Your task to perform on an android device: stop showing notifications on the lock screen Image 0: 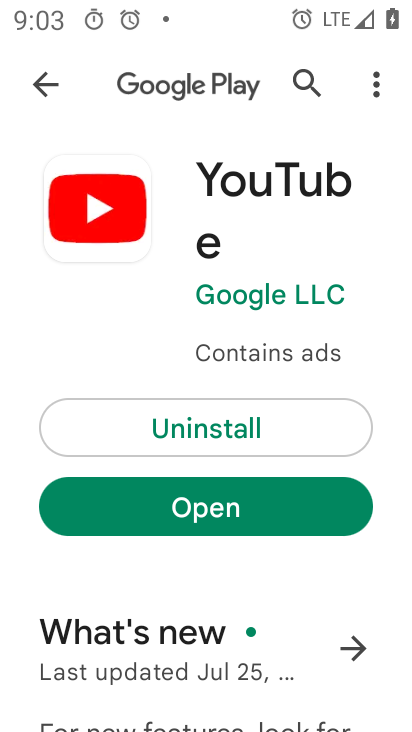
Step 0: press home button
Your task to perform on an android device: stop showing notifications on the lock screen Image 1: 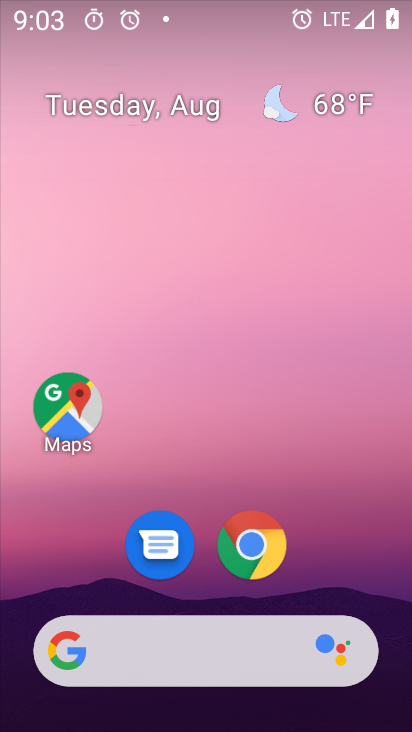
Step 1: drag from (205, 596) to (229, 91)
Your task to perform on an android device: stop showing notifications on the lock screen Image 2: 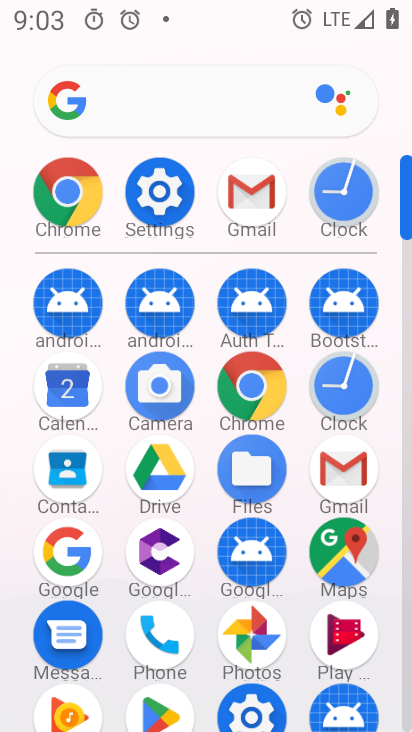
Step 2: click (187, 200)
Your task to perform on an android device: stop showing notifications on the lock screen Image 3: 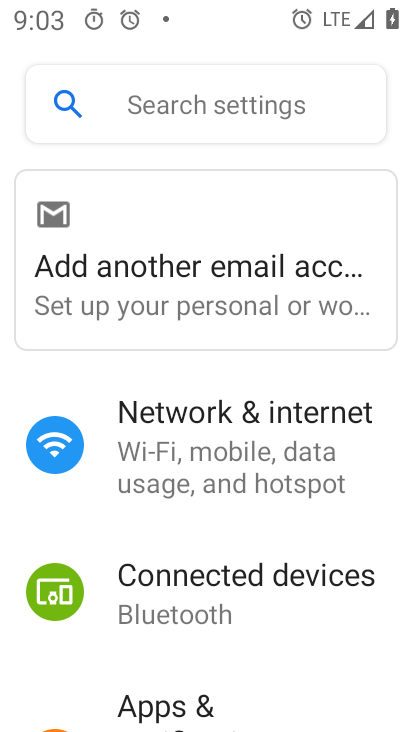
Step 3: click (177, 712)
Your task to perform on an android device: stop showing notifications on the lock screen Image 4: 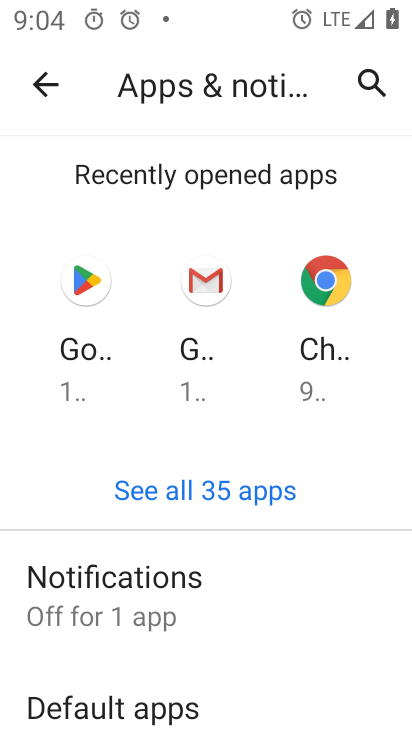
Step 4: drag from (169, 616) to (196, 433)
Your task to perform on an android device: stop showing notifications on the lock screen Image 5: 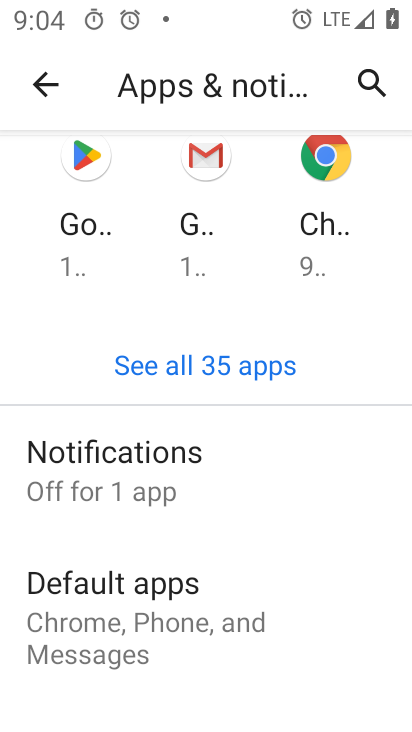
Step 5: click (174, 463)
Your task to perform on an android device: stop showing notifications on the lock screen Image 6: 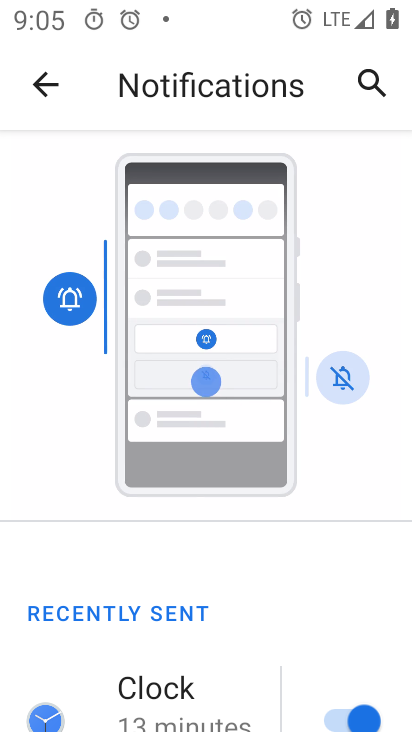
Step 6: drag from (155, 632) to (157, 151)
Your task to perform on an android device: stop showing notifications on the lock screen Image 7: 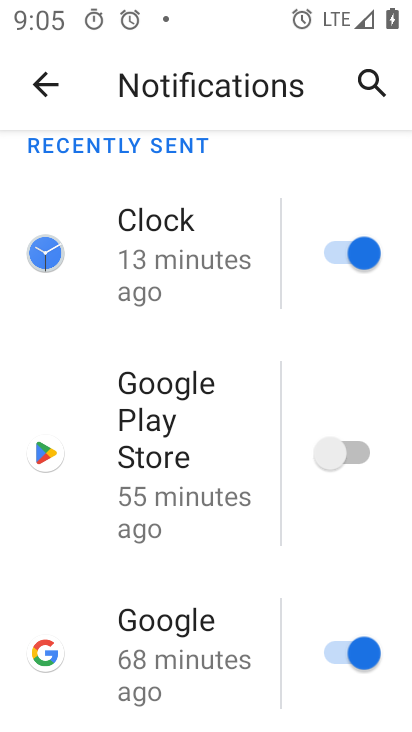
Step 7: drag from (187, 559) to (248, 144)
Your task to perform on an android device: stop showing notifications on the lock screen Image 8: 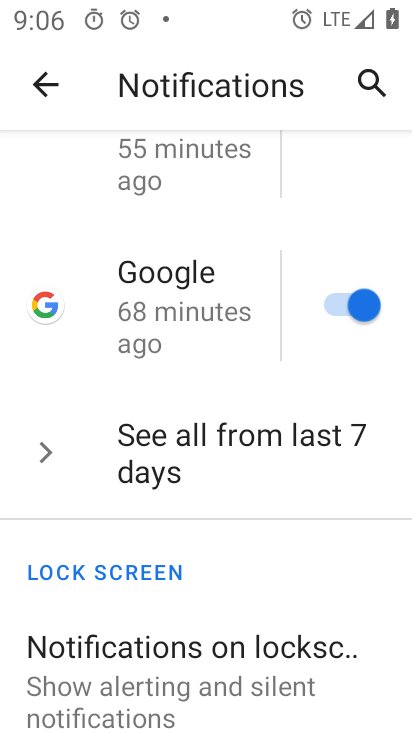
Step 8: click (214, 681)
Your task to perform on an android device: stop showing notifications on the lock screen Image 9: 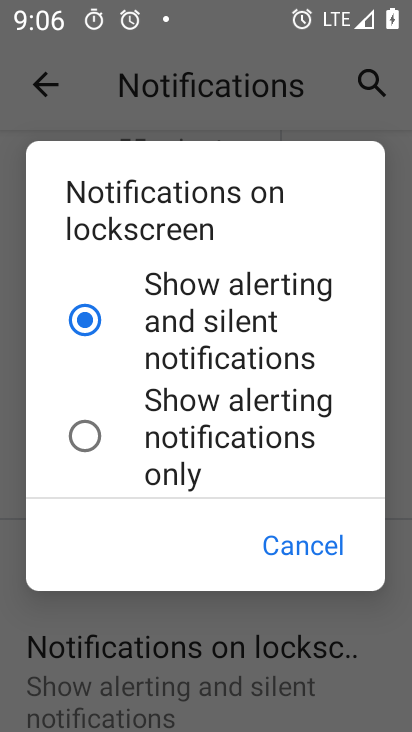
Step 9: click (90, 438)
Your task to perform on an android device: stop showing notifications on the lock screen Image 10: 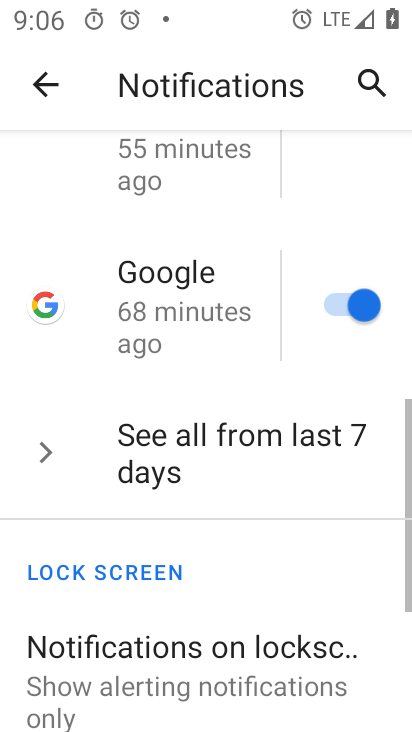
Step 10: task complete